Your task to perform on an android device: change the clock style Image 0: 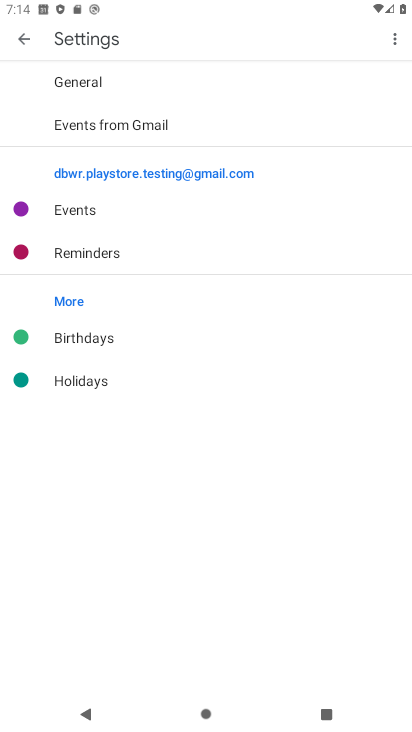
Step 0: press home button
Your task to perform on an android device: change the clock style Image 1: 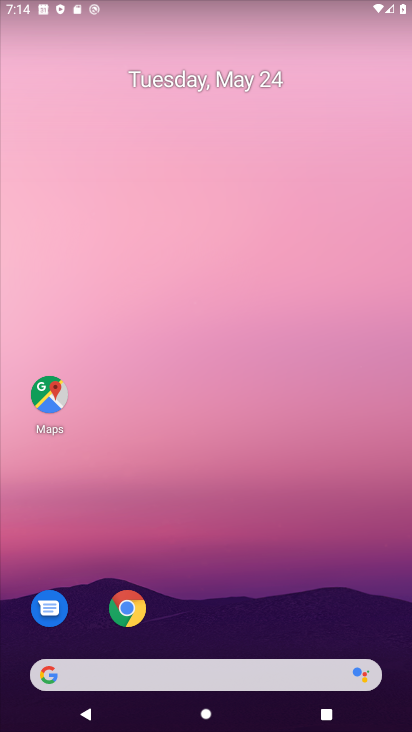
Step 1: drag from (241, 619) to (276, 156)
Your task to perform on an android device: change the clock style Image 2: 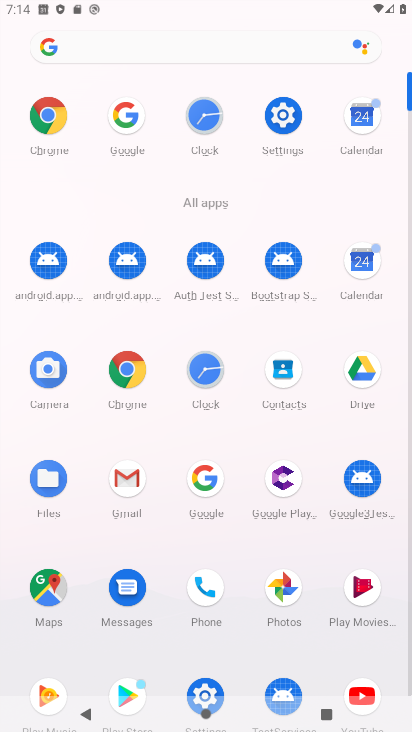
Step 2: click (205, 370)
Your task to perform on an android device: change the clock style Image 3: 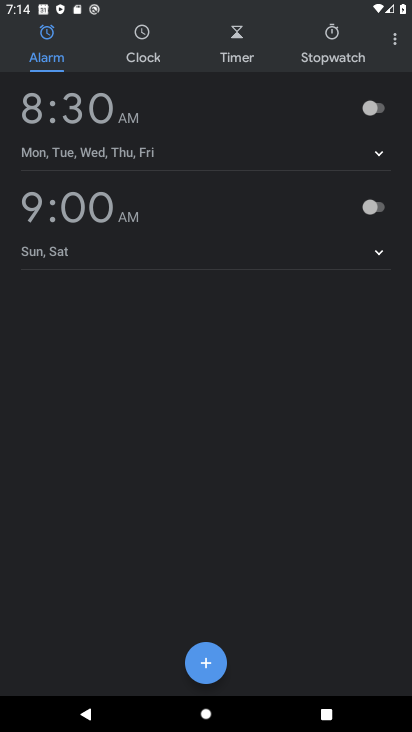
Step 3: click (394, 40)
Your task to perform on an android device: change the clock style Image 4: 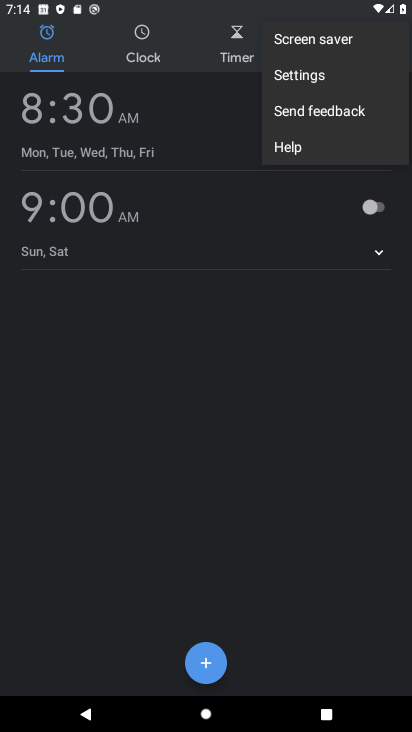
Step 4: click (321, 76)
Your task to perform on an android device: change the clock style Image 5: 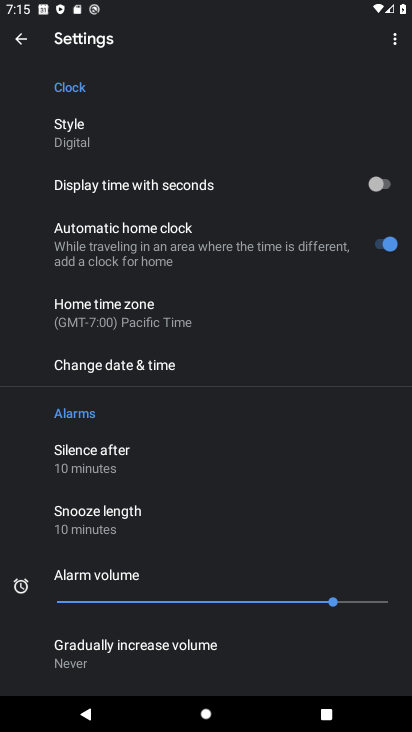
Step 5: click (111, 133)
Your task to perform on an android device: change the clock style Image 6: 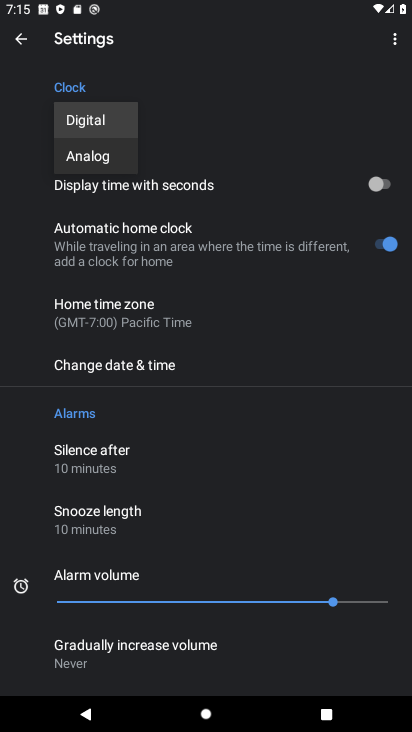
Step 6: click (107, 152)
Your task to perform on an android device: change the clock style Image 7: 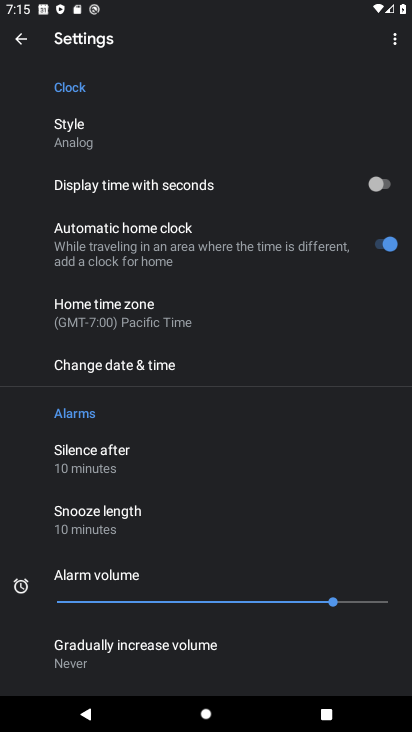
Step 7: task complete